Your task to perform on an android device: add a contact Image 0: 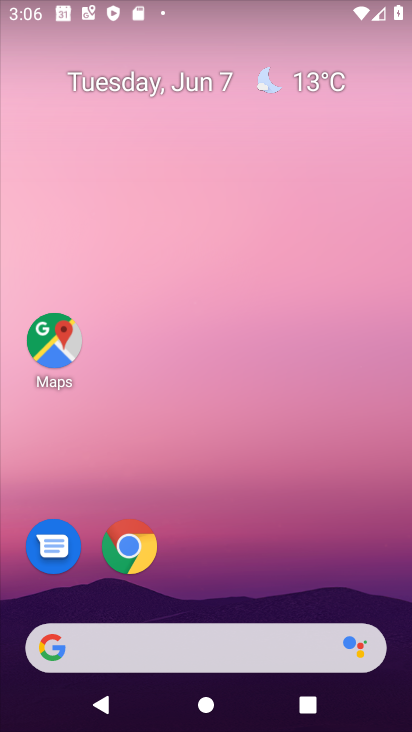
Step 0: drag from (201, 441) to (332, 252)
Your task to perform on an android device: add a contact Image 1: 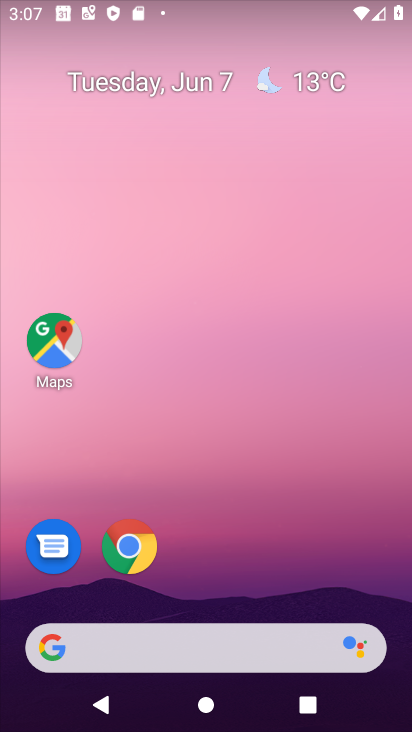
Step 1: drag from (63, 514) to (287, 79)
Your task to perform on an android device: add a contact Image 2: 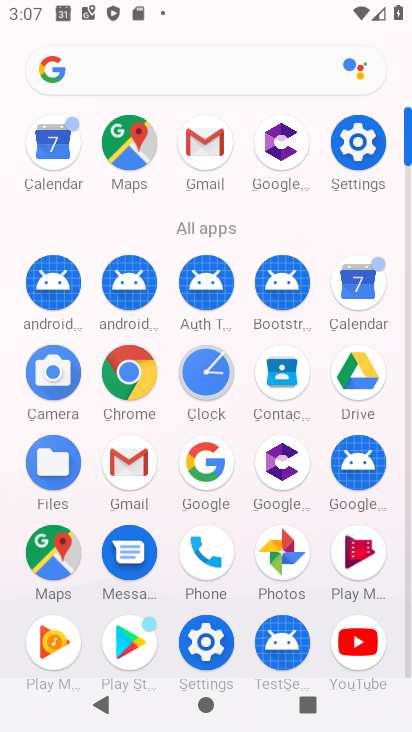
Step 2: click (192, 552)
Your task to perform on an android device: add a contact Image 3: 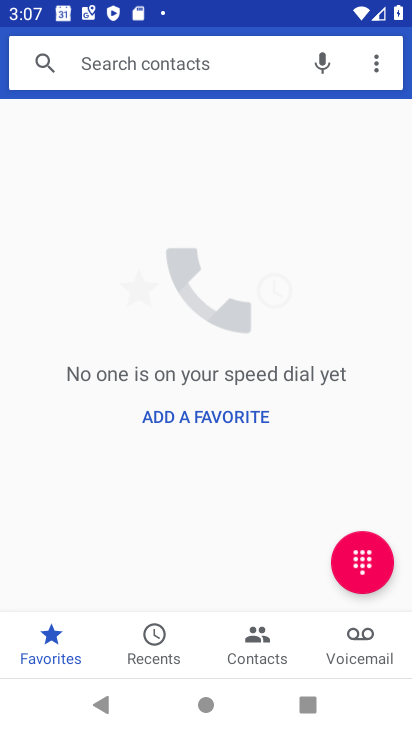
Step 3: click (250, 647)
Your task to perform on an android device: add a contact Image 4: 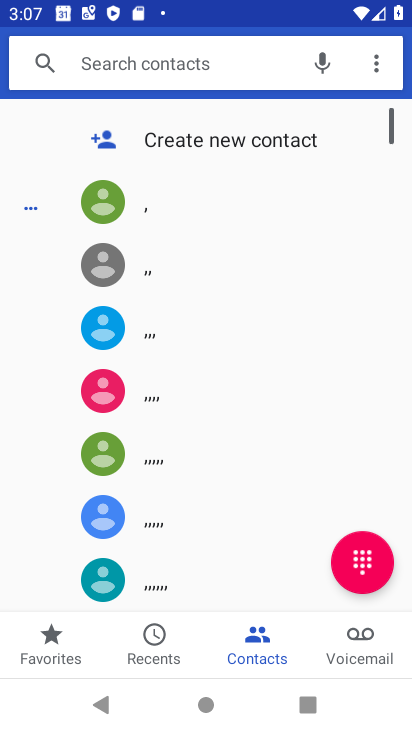
Step 4: click (214, 130)
Your task to perform on an android device: add a contact Image 5: 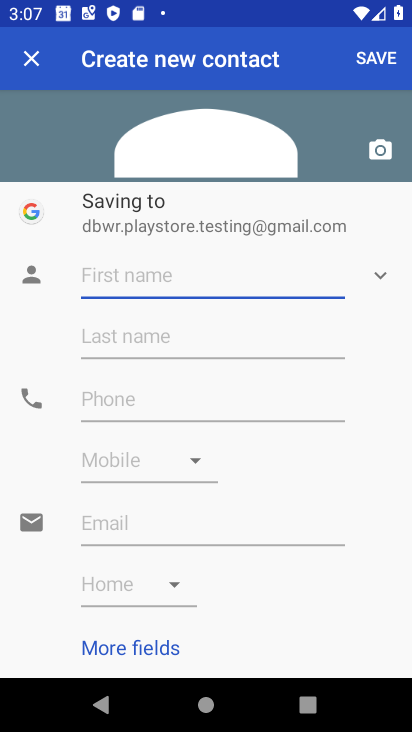
Step 5: click (205, 277)
Your task to perform on an android device: add a contact Image 6: 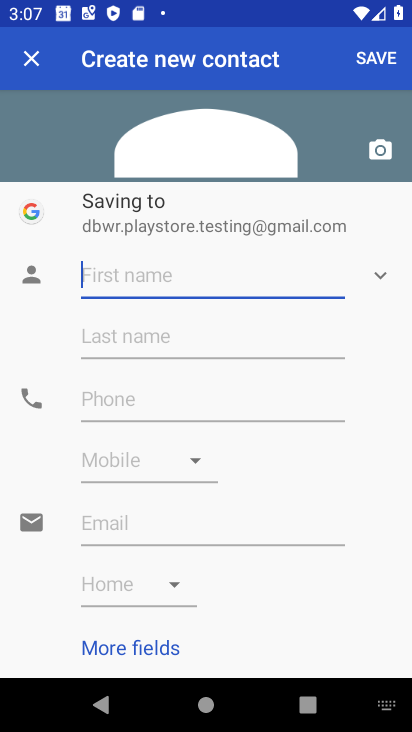
Step 6: type "bjbkjb"
Your task to perform on an android device: add a contact Image 7: 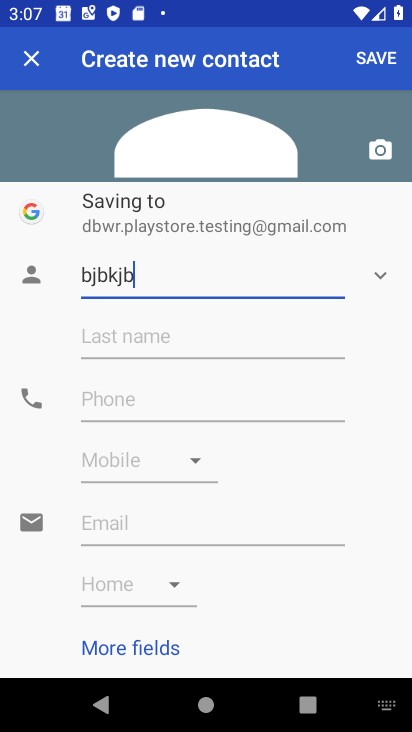
Step 7: type ""
Your task to perform on an android device: add a contact Image 8: 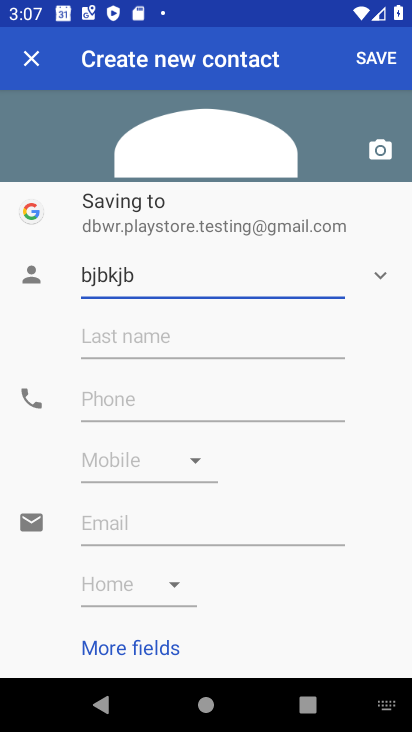
Step 8: click (367, 62)
Your task to perform on an android device: add a contact Image 9: 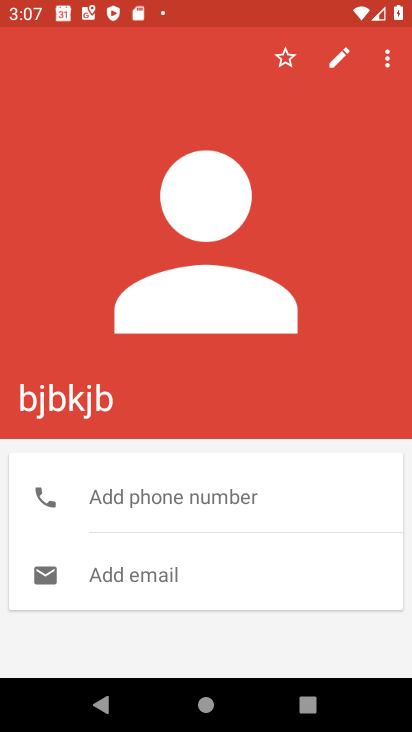
Step 9: task complete